Your task to perform on an android device: Open privacy settings Image 0: 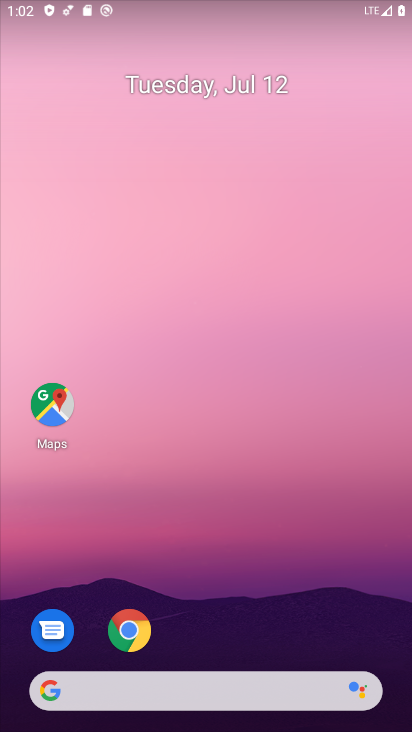
Step 0: drag from (339, 625) to (330, 80)
Your task to perform on an android device: Open privacy settings Image 1: 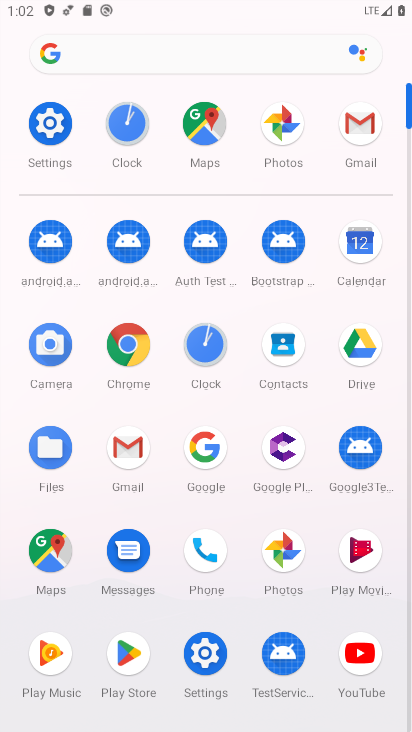
Step 1: click (207, 651)
Your task to perform on an android device: Open privacy settings Image 2: 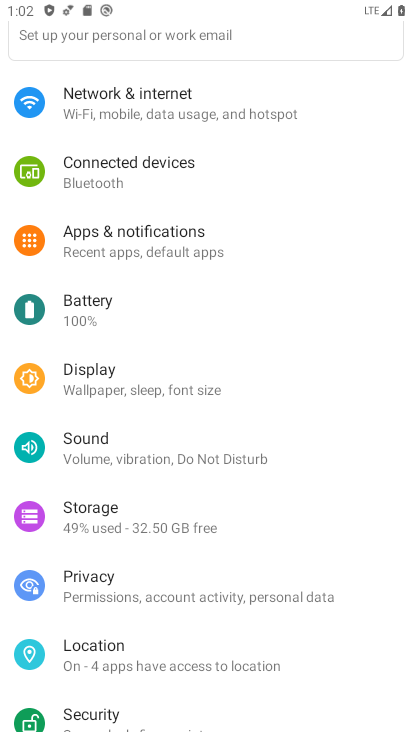
Step 2: click (96, 579)
Your task to perform on an android device: Open privacy settings Image 3: 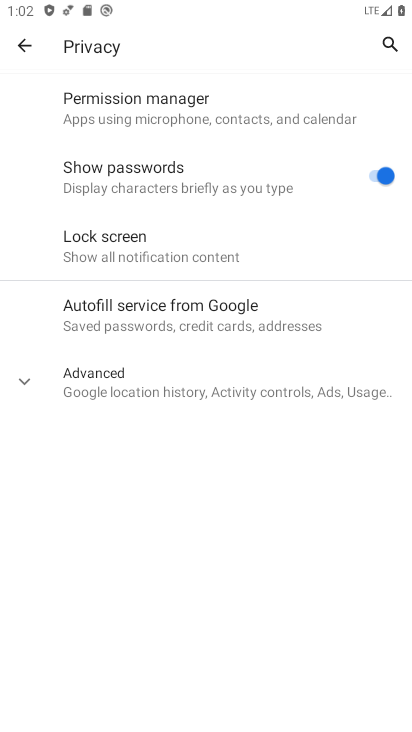
Step 3: click (27, 381)
Your task to perform on an android device: Open privacy settings Image 4: 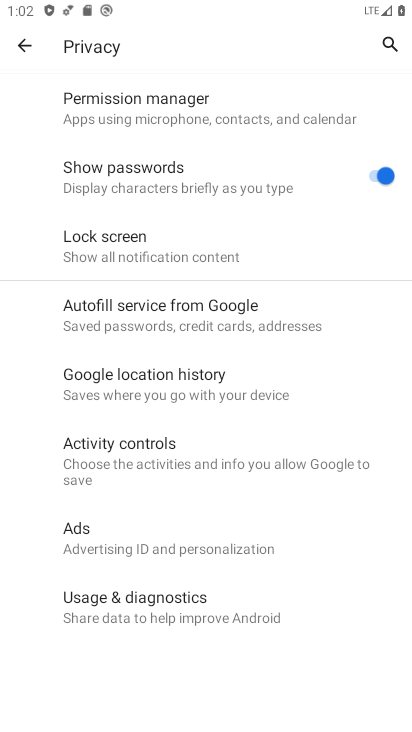
Step 4: task complete